Your task to perform on an android device: open app "Google Duo" (install if not already installed) Image 0: 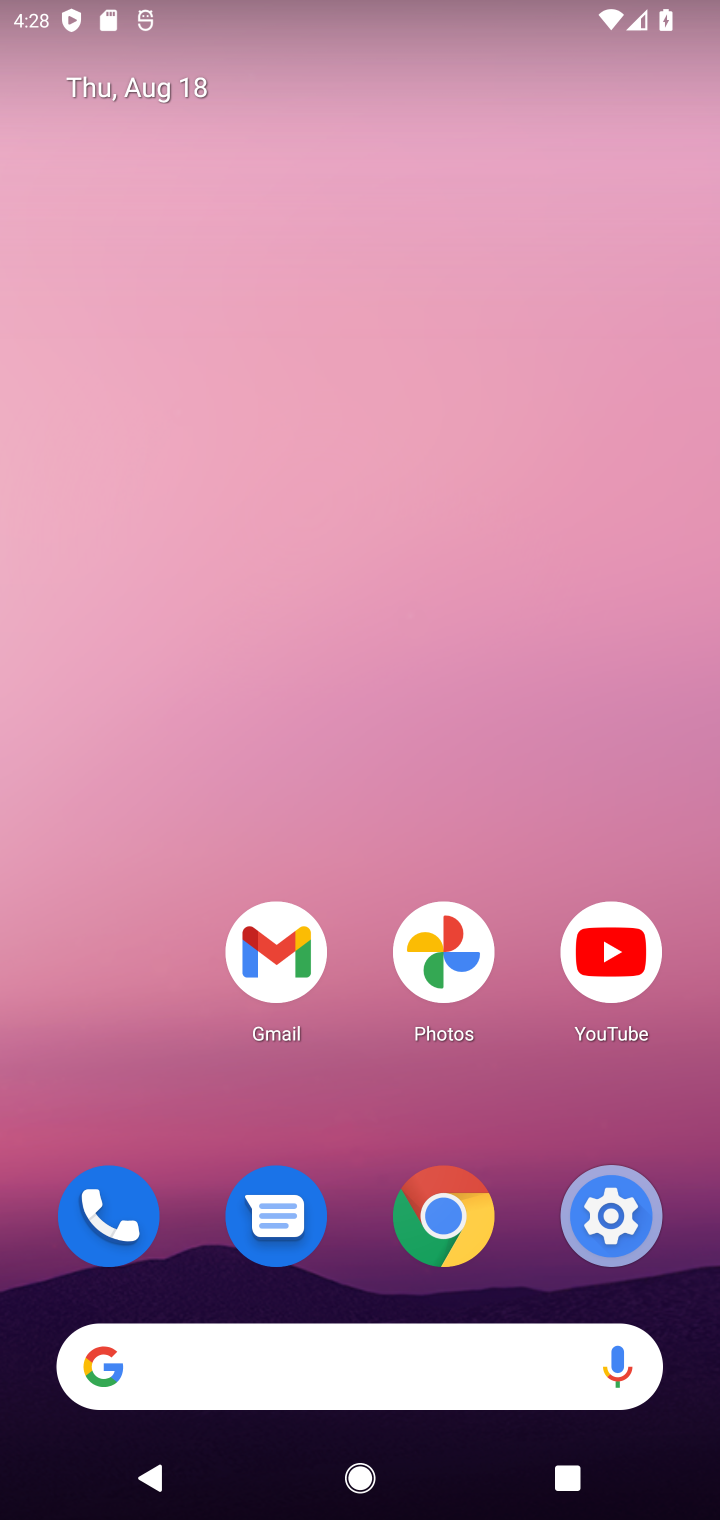
Step 0: drag from (361, 1128) to (418, 273)
Your task to perform on an android device: open app "Google Duo" (install if not already installed) Image 1: 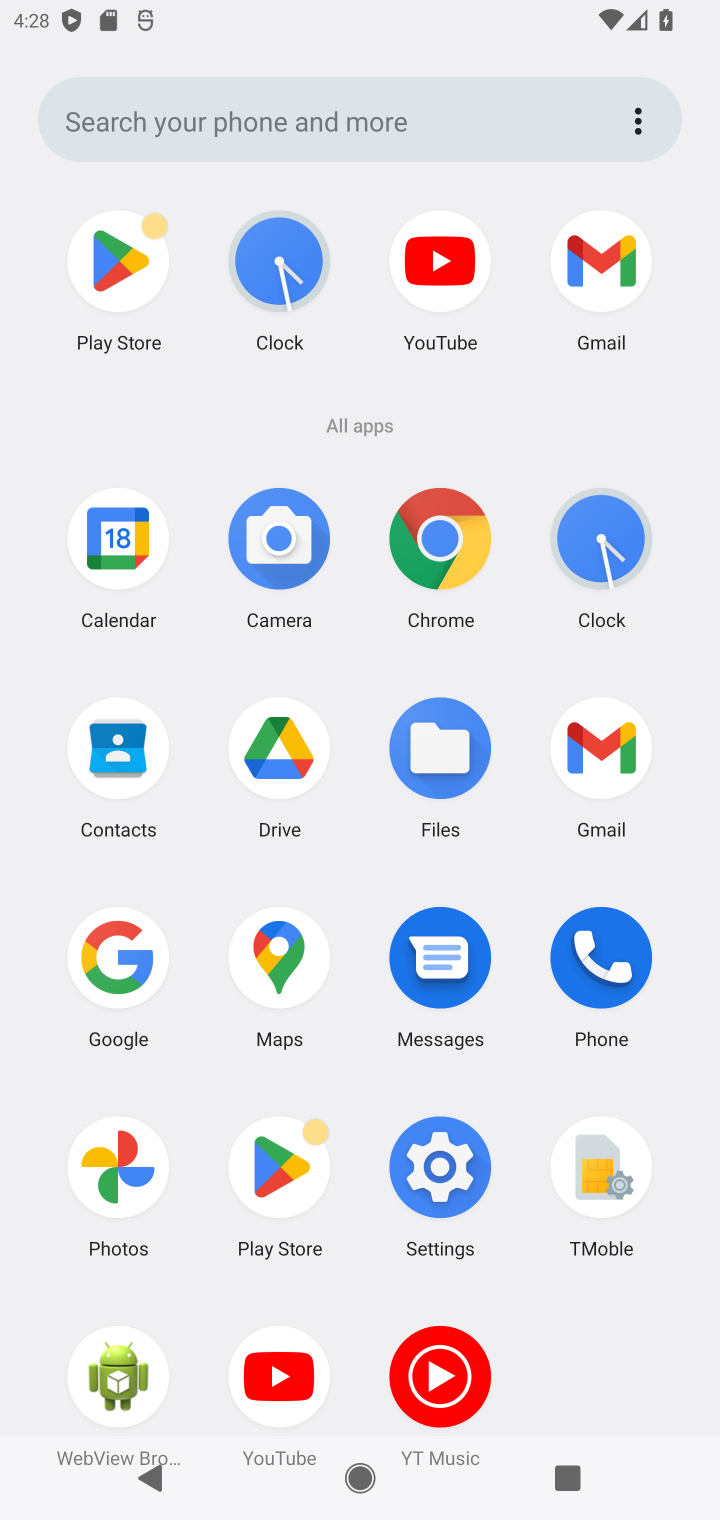
Step 1: click (115, 271)
Your task to perform on an android device: open app "Google Duo" (install if not already installed) Image 2: 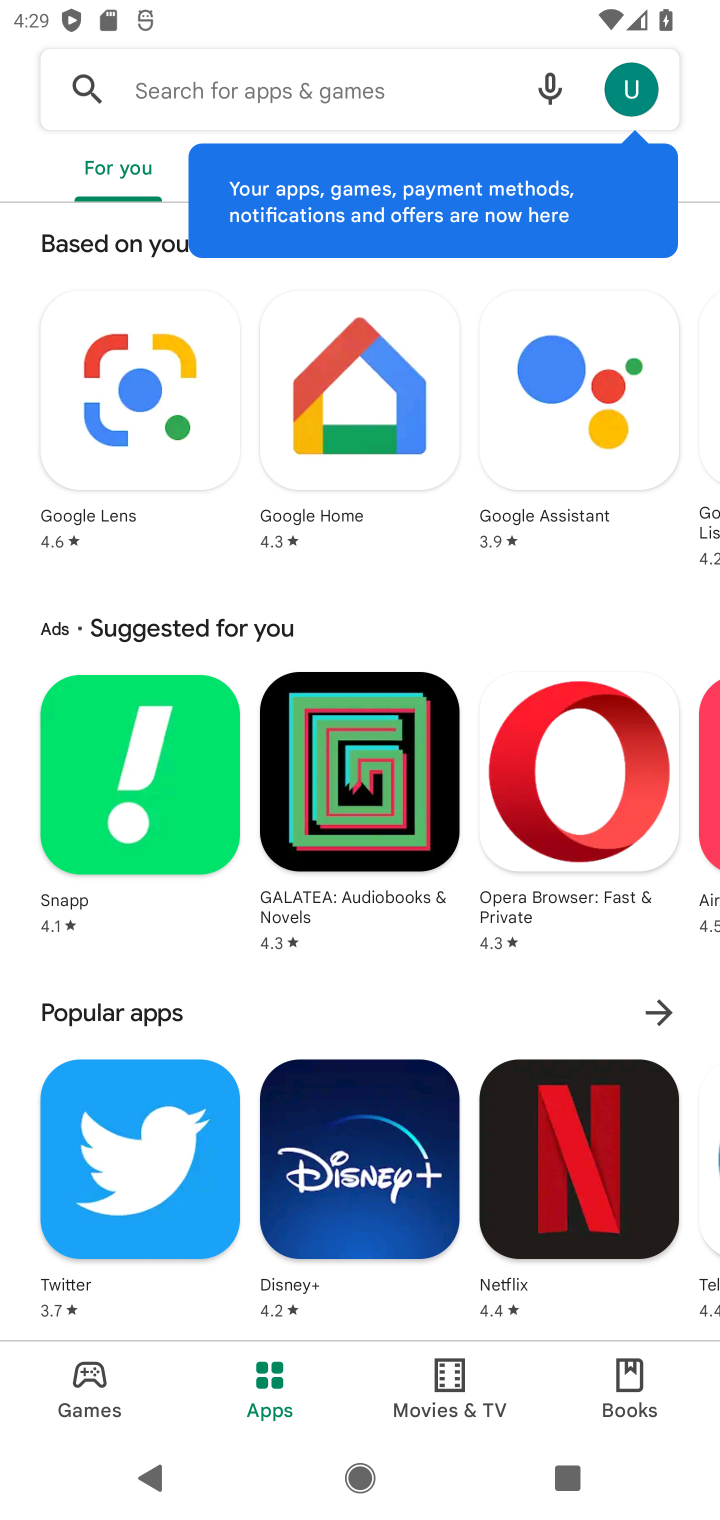
Step 2: click (371, 84)
Your task to perform on an android device: open app "Google Duo" (install if not already installed) Image 3: 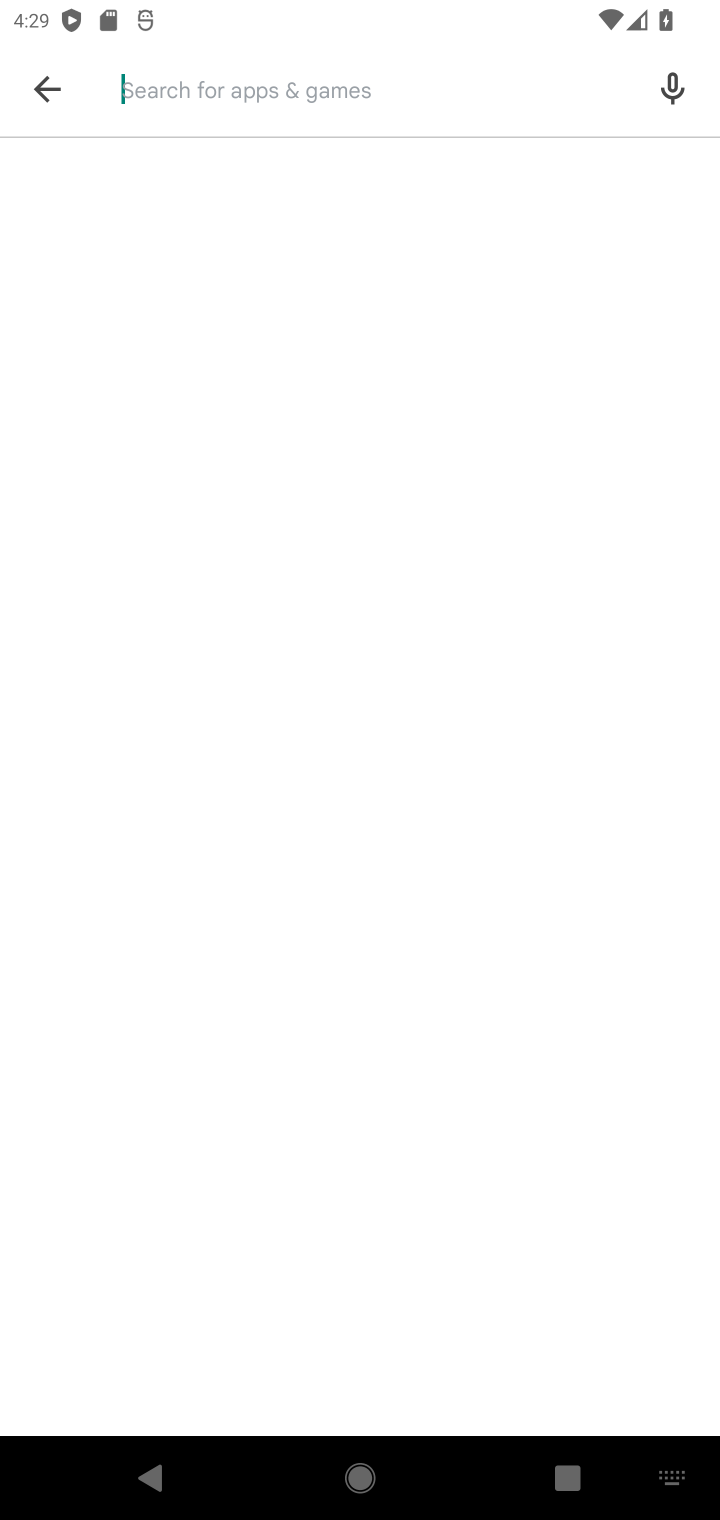
Step 3: type "Google Duo"
Your task to perform on an android device: open app "Google Duo" (install if not already installed) Image 4: 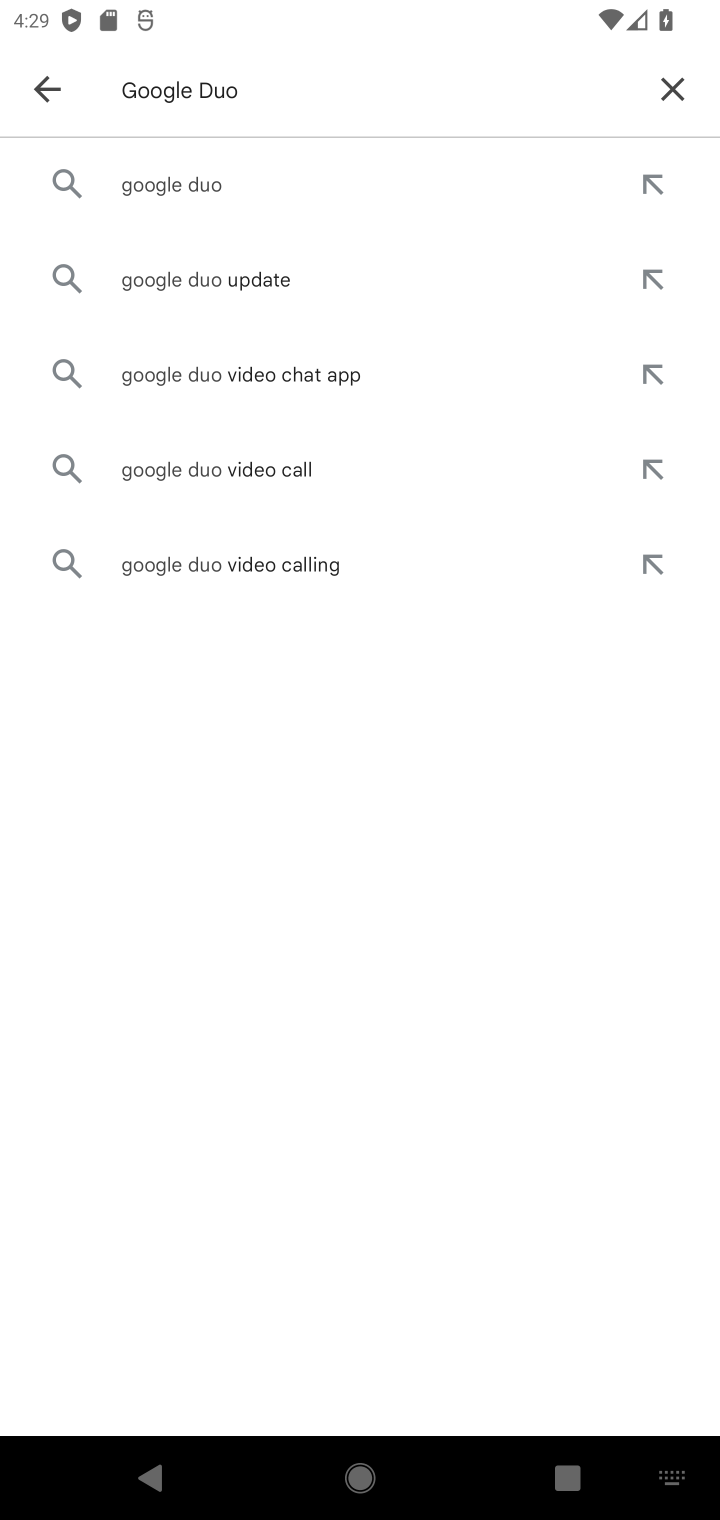
Step 4: click (249, 198)
Your task to perform on an android device: open app "Google Duo" (install if not already installed) Image 5: 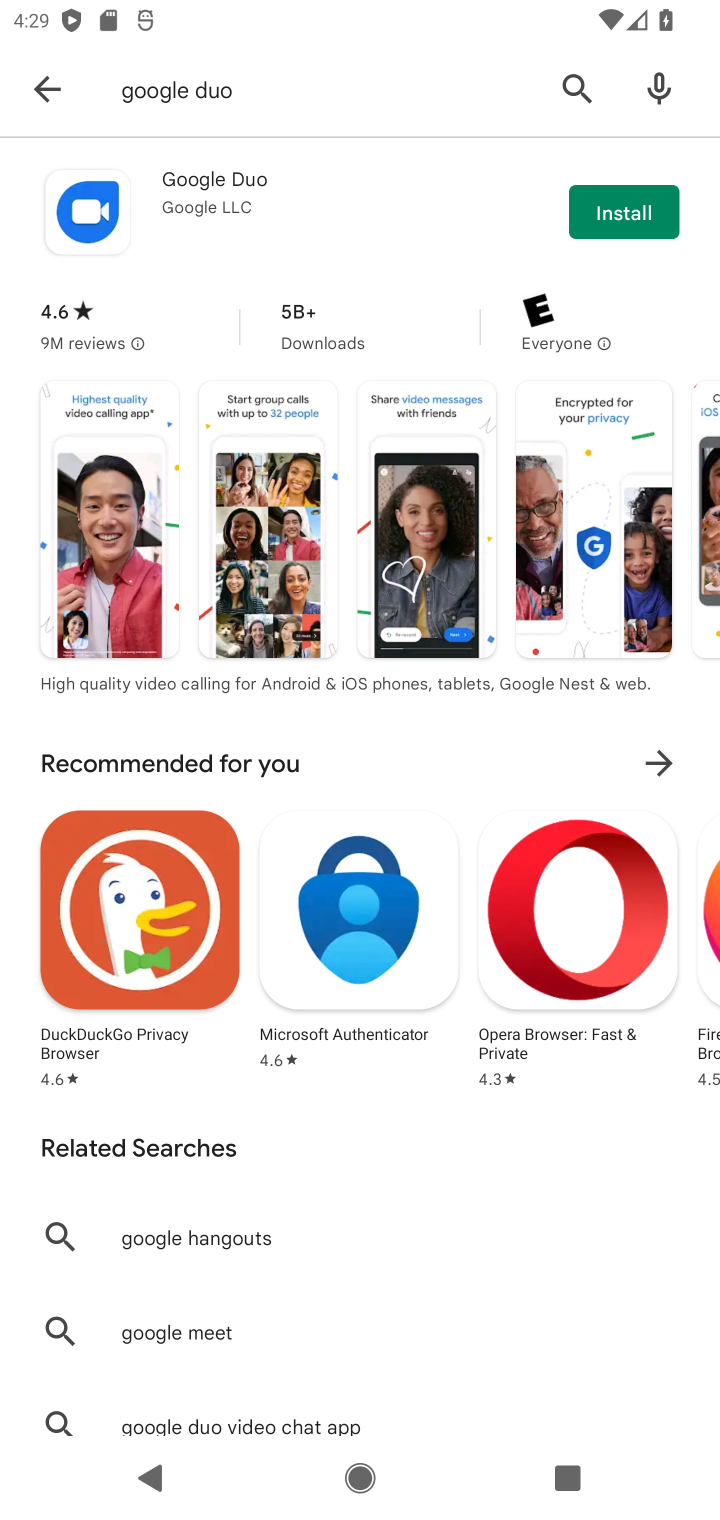
Step 5: click (615, 205)
Your task to perform on an android device: open app "Google Duo" (install if not already installed) Image 6: 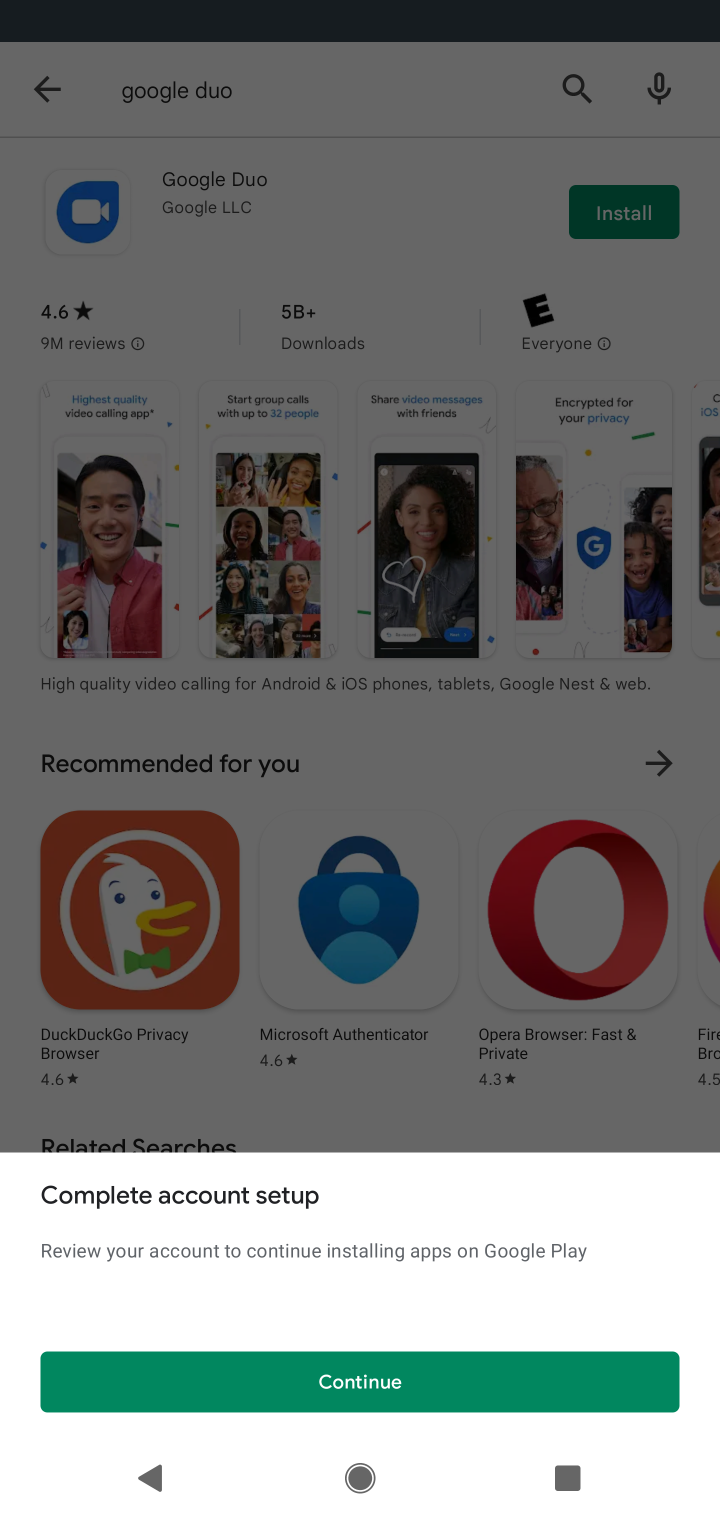
Step 6: click (430, 1365)
Your task to perform on an android device: open app "Google Duo" (install if not already installed) Image 7: 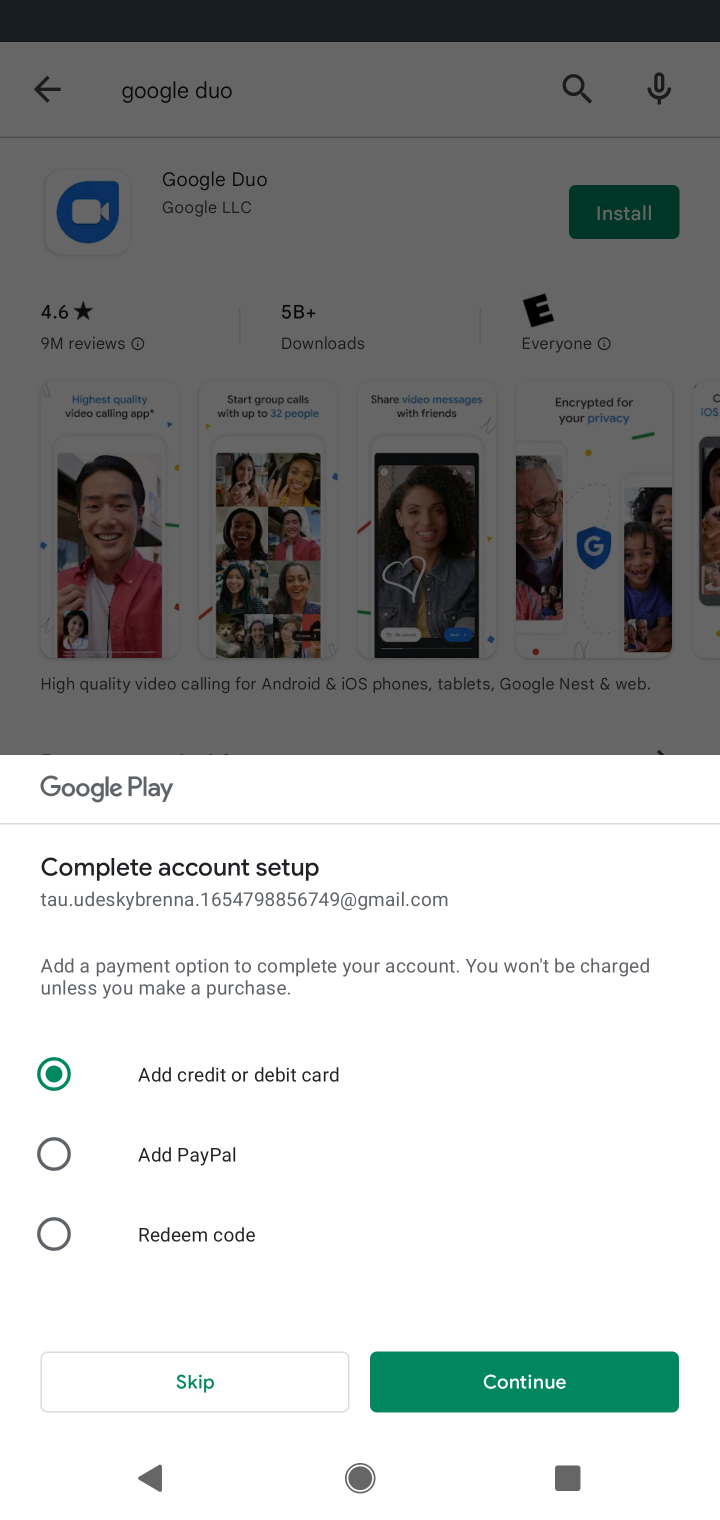
Step 7: click (190, 1378)
Your task to perform on an android device: open app "Google Duo" (install if not already installed) Image 8: 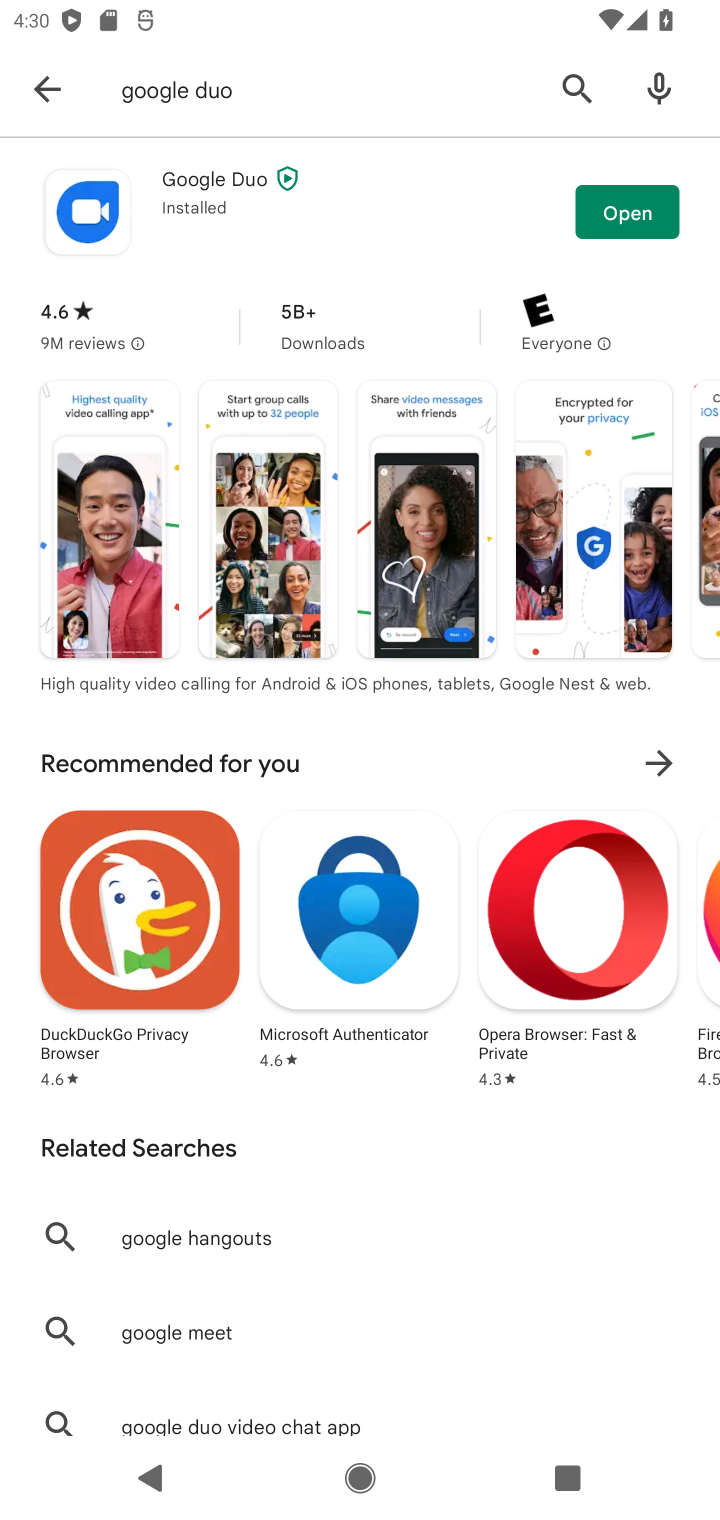
Step 8: click (618, 202)
Your task to perform on an android device: open app "Google Duo" (install if not already installed) Image 9: 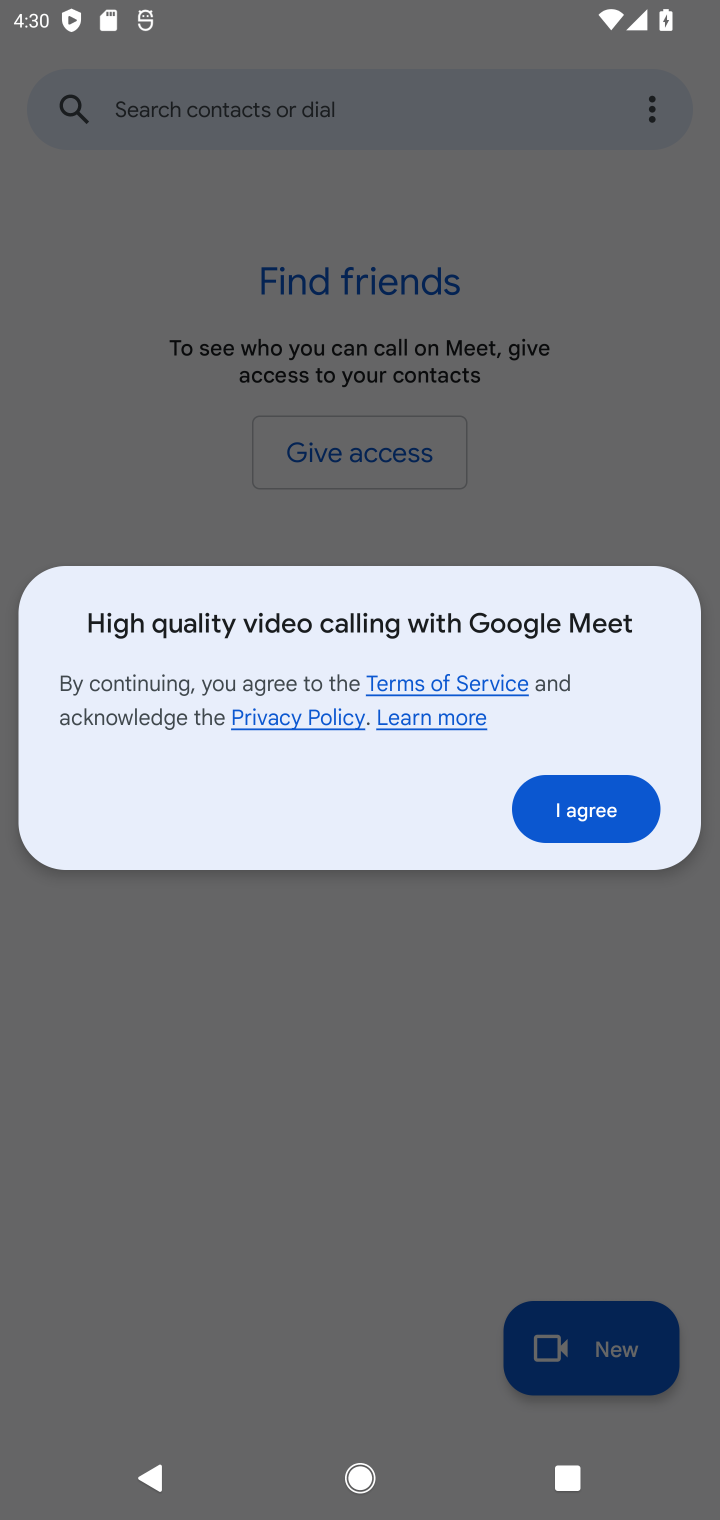
Step 9: task complete